Your task to perform on an android device: Go to privacy settings Image 0: 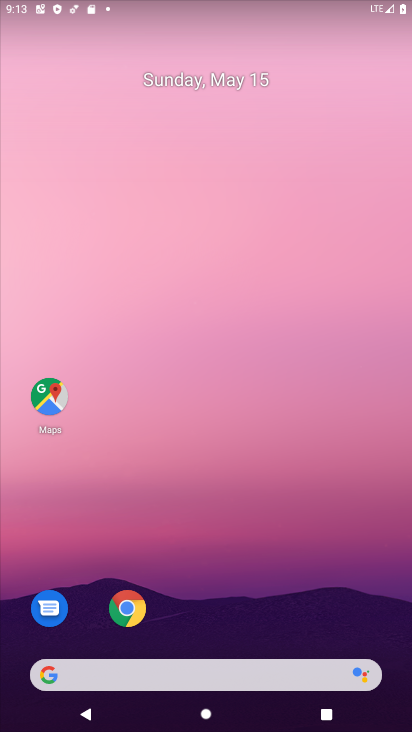
Step 0: drag from (296, 594) to (203, 5)
Your task to perform on an android device: Go to privacy settings Image 1: 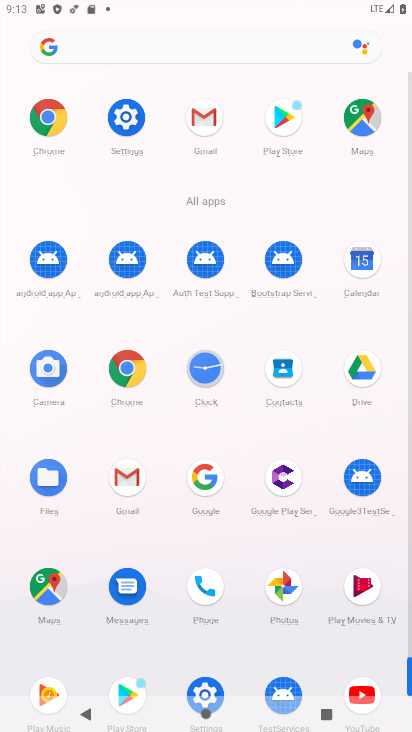
Step 1: click (118, 134)
Your task to perform on an android device: Go to privacy settings Image 2: 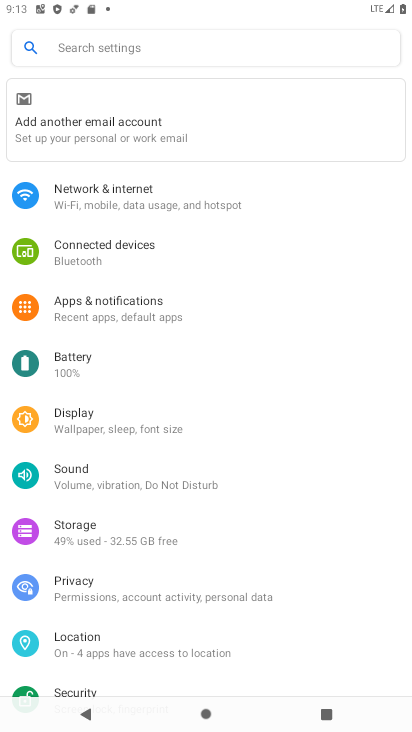
Step 2: click (119, 581)
Your task to perform on an android device: Go to privacy settings Image 3: 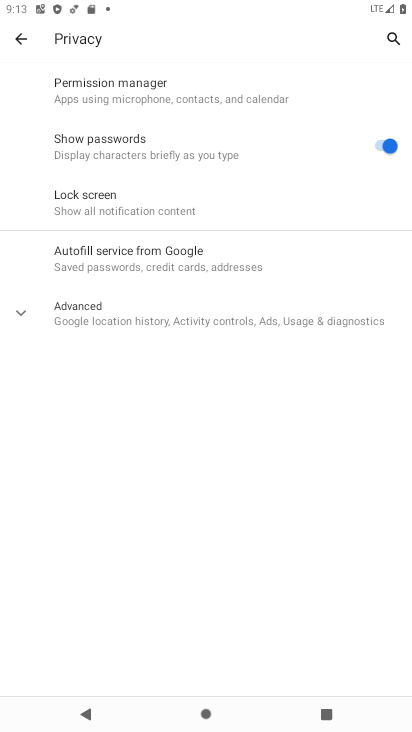
Step 3: task complete